Your task to perform on an android device: Go to Wikipedia Image 0: 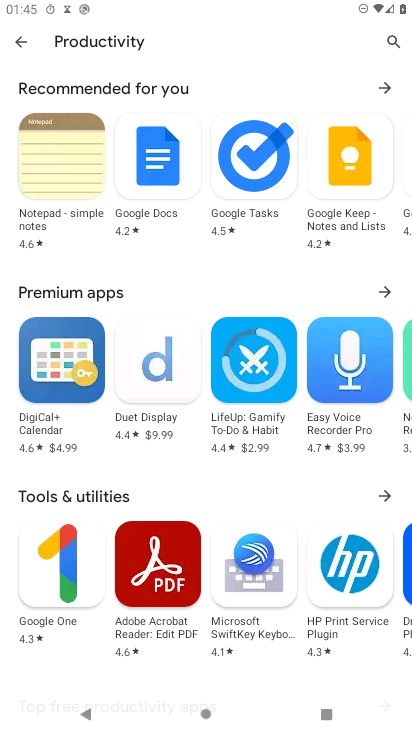
Step 0: press home button
Your task to perform on an android device: Go to Wikipedia Image 1: 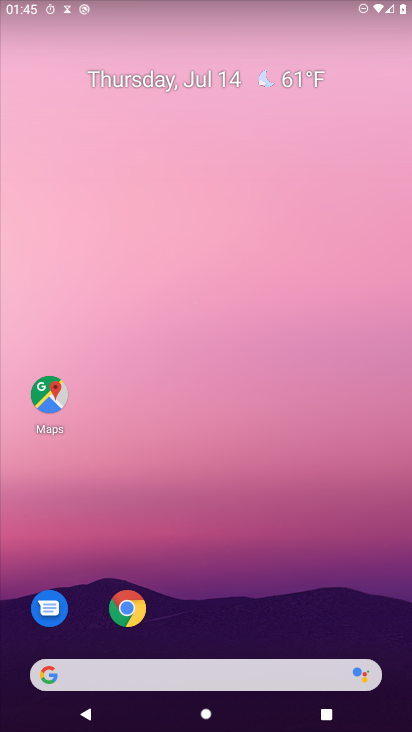
Step 1: click (50, 677)
Your task to perform on an android device: Go to Wikipedia Image 2: 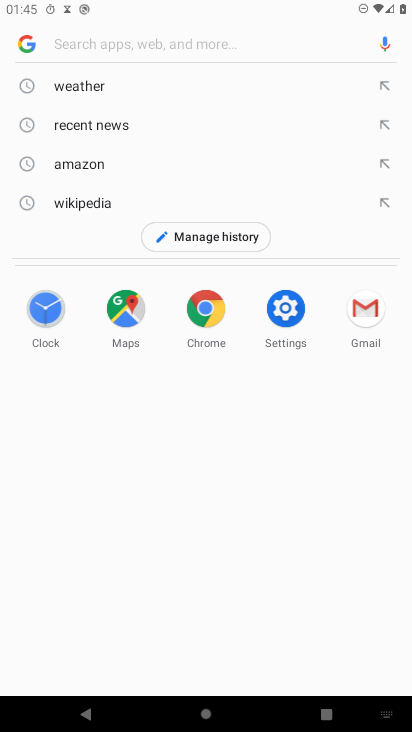
Step 2: type "Wikipedia"
Your task to perform on an android device: Go to Wikipedia Image 3: 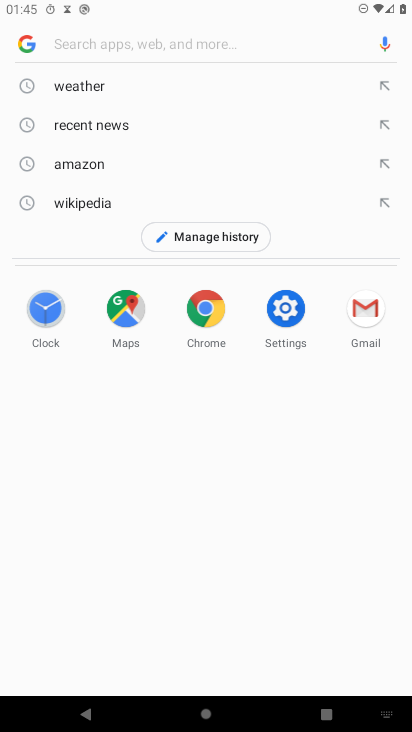
Step 3: click (64, 40)
Your task to perform on an android device: Go to Wikipedia Image 4: 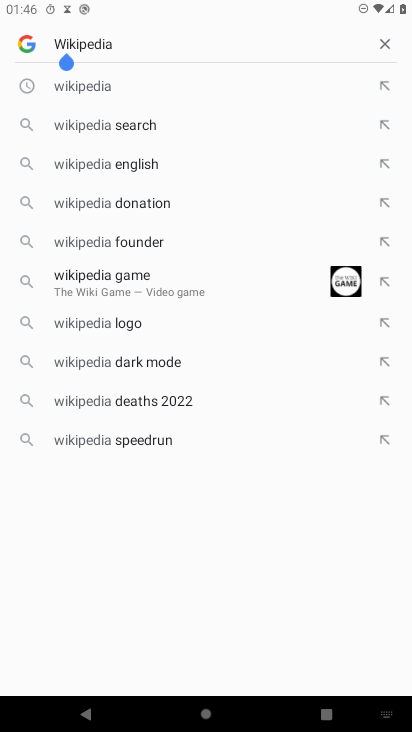
Step 4: click (90, 85)
Your task to perform on an android device: Go to Wikipedia Image 5: 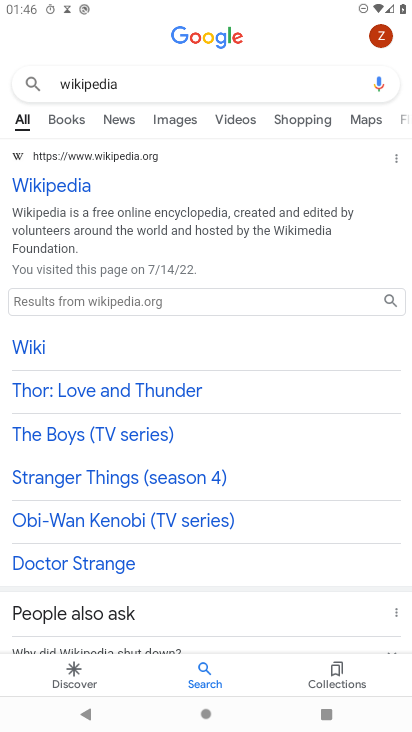
Step 5: click (42, 180)
Your task to perform on an android device: Go to Wikipedia Image 6: 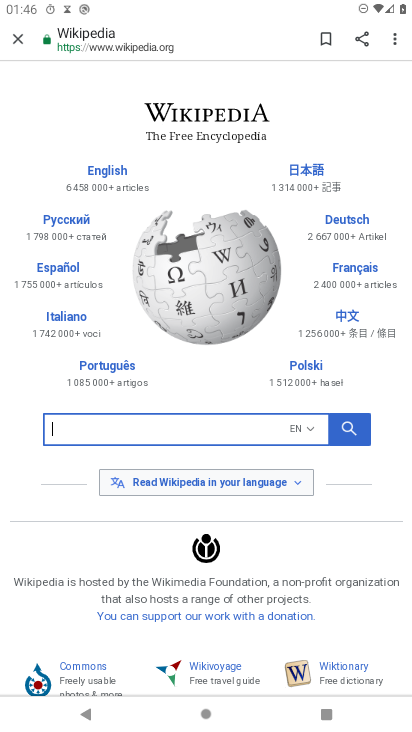
Step 6: task complete